Your task to perform on an android device: Clear the cart on newegg. Add "razer blade" to the cart on newegg Image 0: 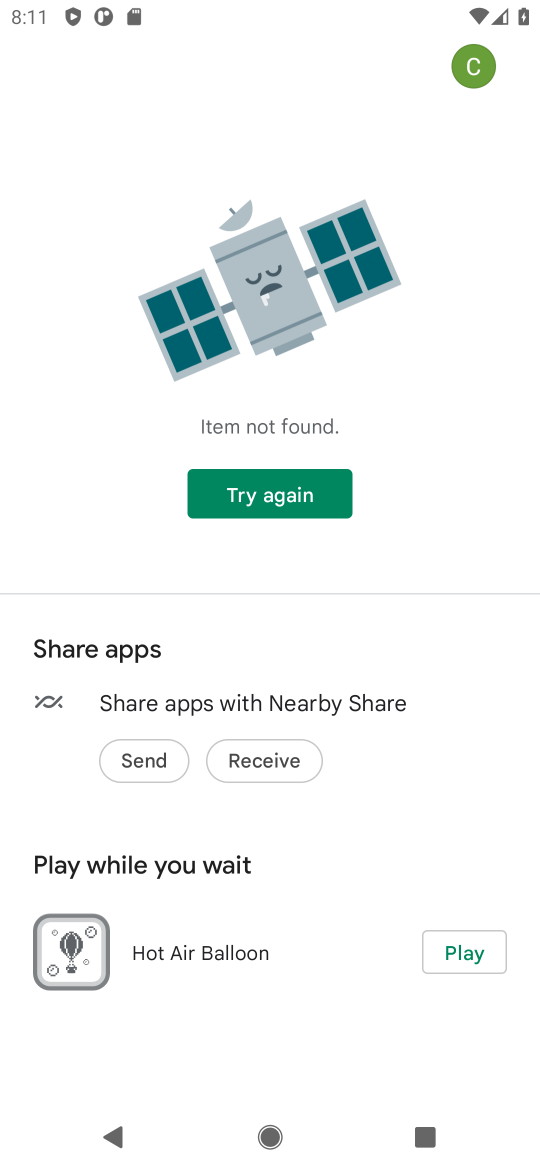
Step 0: press home button
Your task to perform on an android device: Clear the cart on newegg. Add "razer blade" to the cart on newegg Image 1: 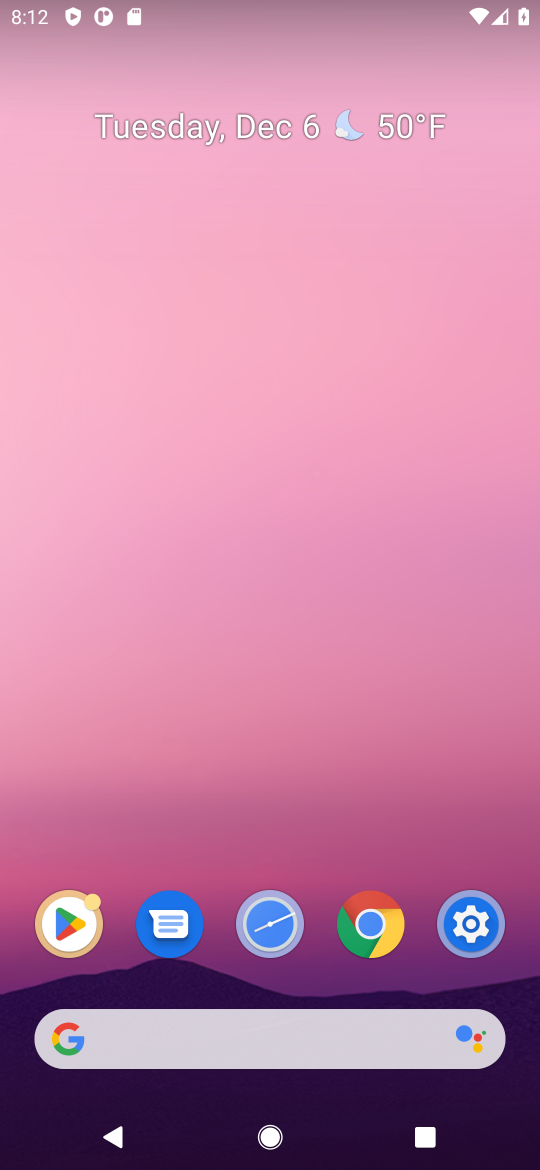
Step 1: click (301, 1027)
Your task to perform on an android device: Clear the cart on newegg. Add "razer blade" to the cart on newegg Image 2: 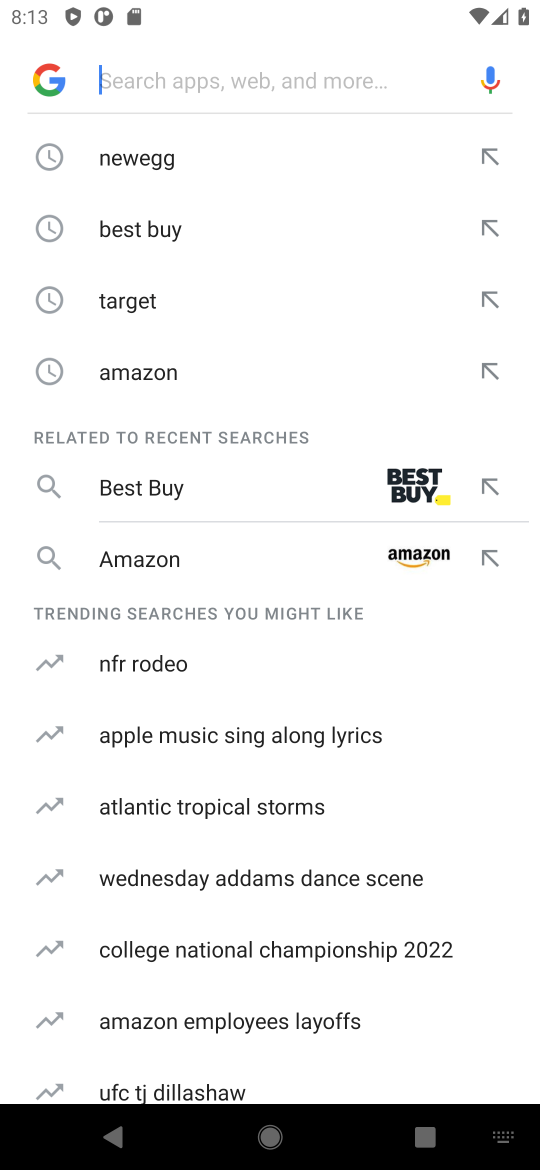
Step 2: click (136, 141)
Your task to perform on an android device: Clear the cart on newegg. Add "razer blade" to the cart on newegg Image 3: 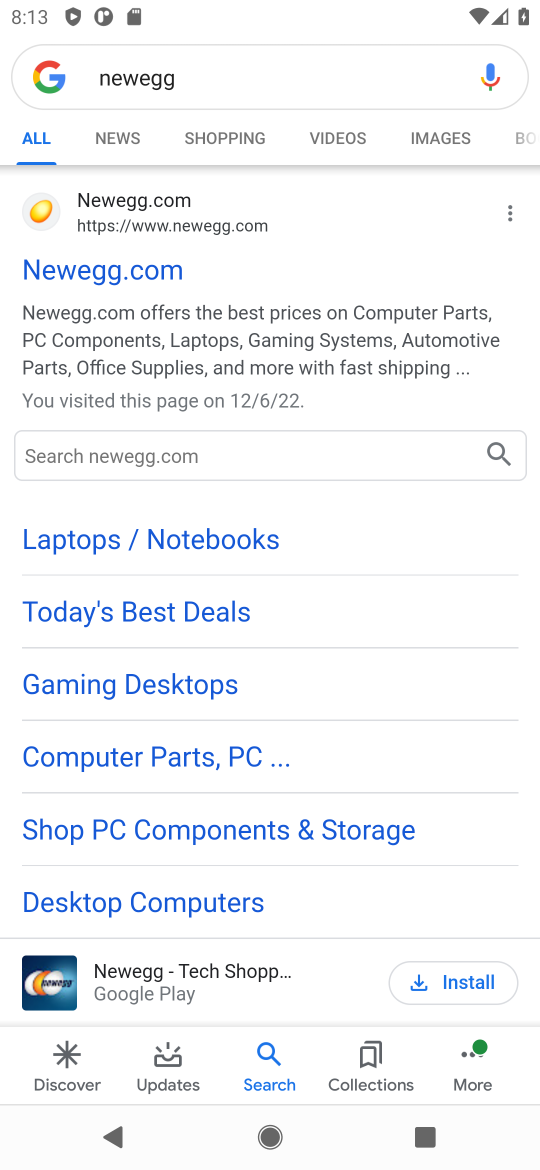
Step 3: click (100, 307)
Your task to perform on an android device: Clear the cart on newegg. Add "razer blade" to the cart on newegg Image 4: 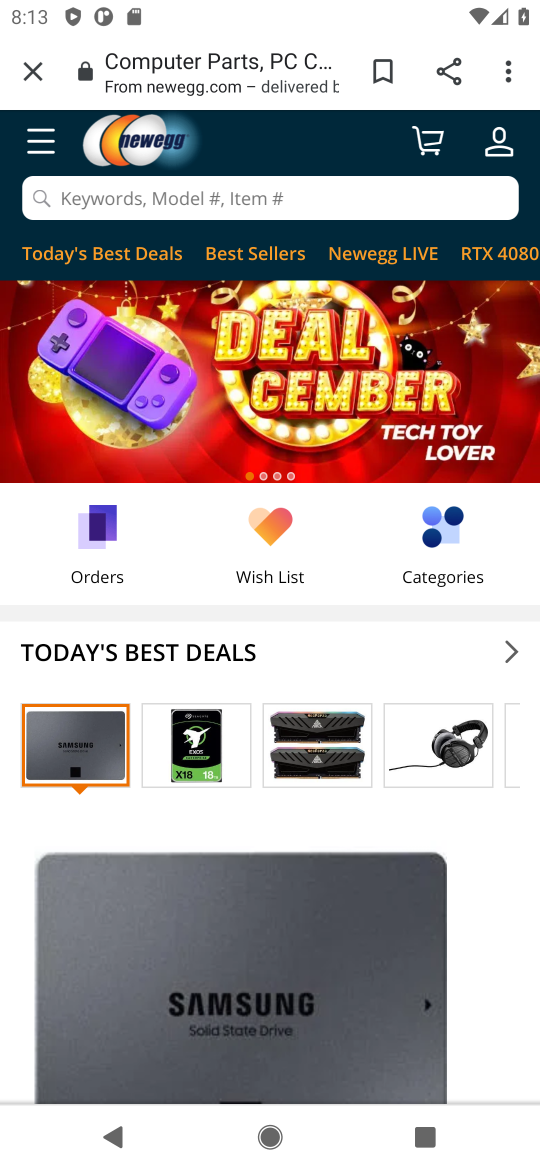
Step 4: click (264, 211)
Your task to perform on an android device: Clear the cart on newegg. Add "razer blade" to the cart on newegg Image 5: 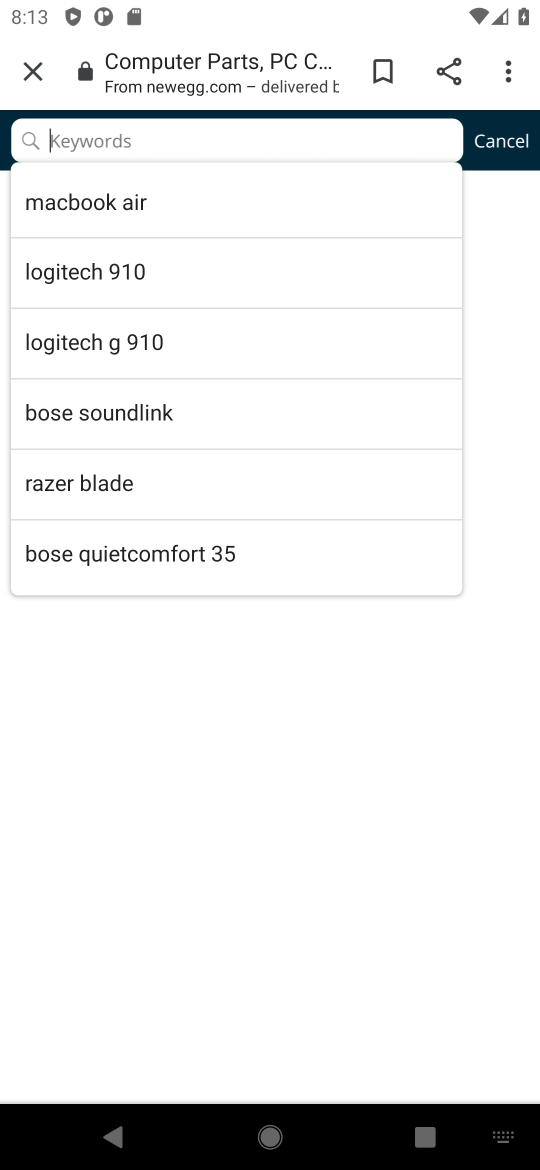
Step 5: type "razer blade"
Your task to perform on an android device: Clear the cart on newegg. Add "razer blade" to the cart on newegg Image 6: 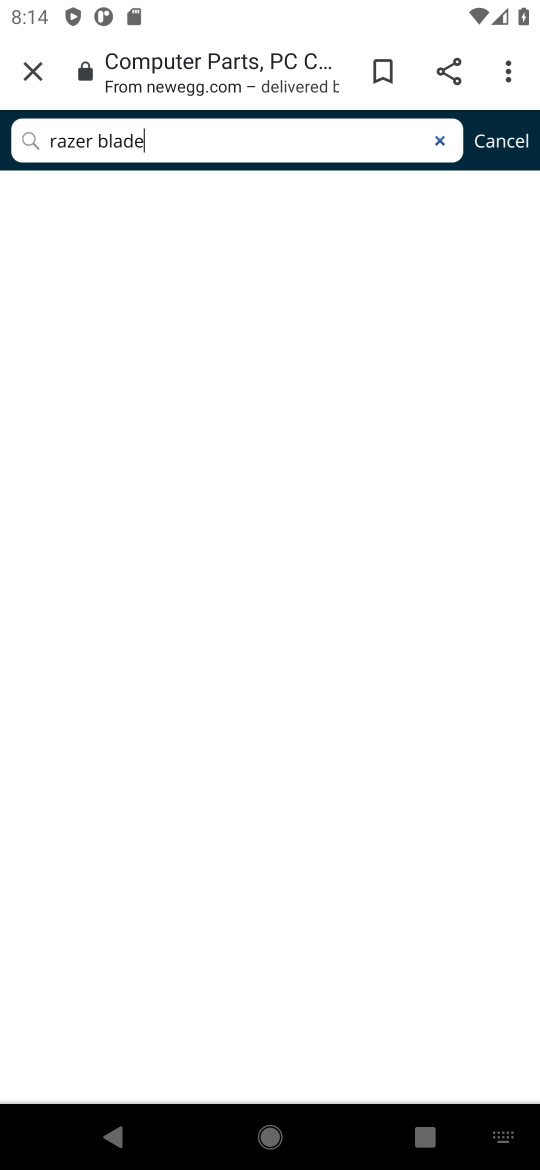
Step 6: task complete